Your task to perform on an android device: star an email in the gmail app Image 0: 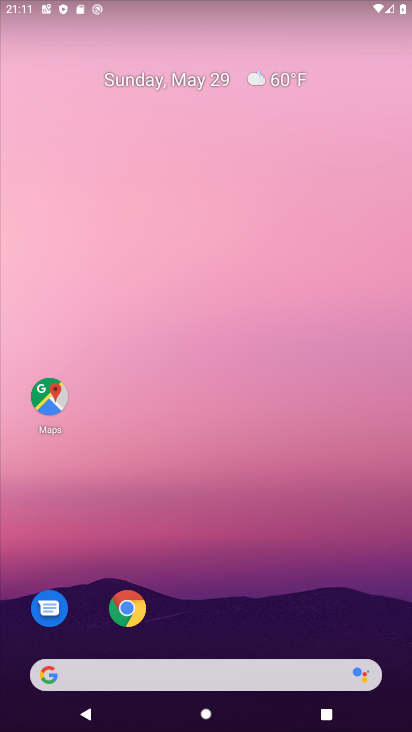
Step 0: drag from (365, 627) to (385, 251)
Your task to perform on an android device: star an email in the gmail app Image 1: 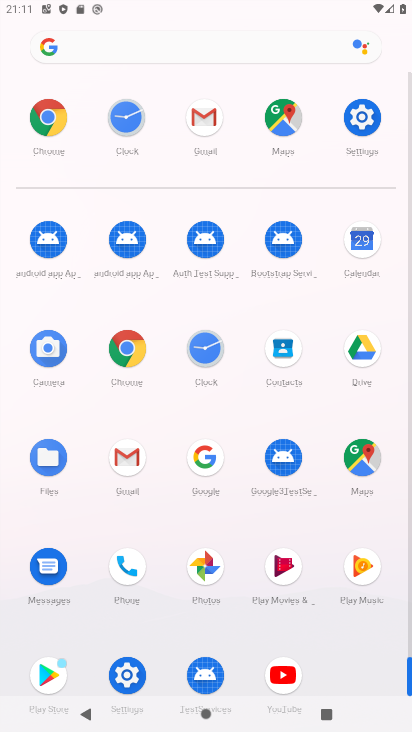
Step 1: click (129, 464)
Your task to perform on an android device: star an email in the gmail app Image 2: 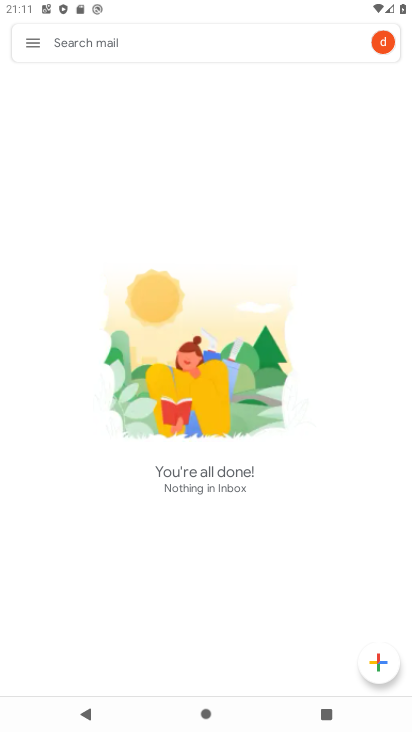
Step 2: task complete